Your task to perform on an android device: Open the stopwatch Image 0: 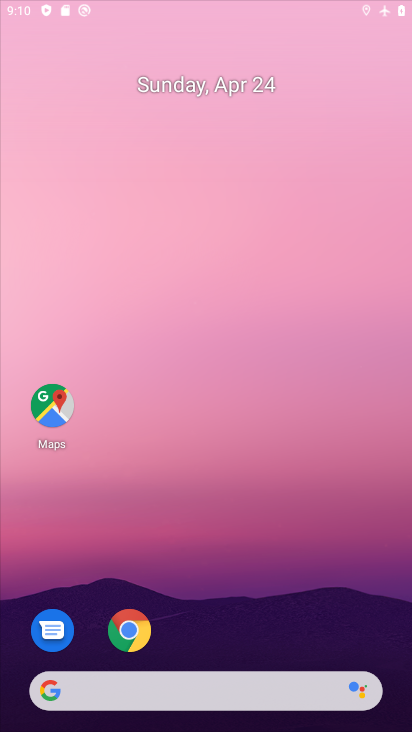
Step 0: click (91, 104)
Your task to perform on an android device: Open the stopwatch Image 1: 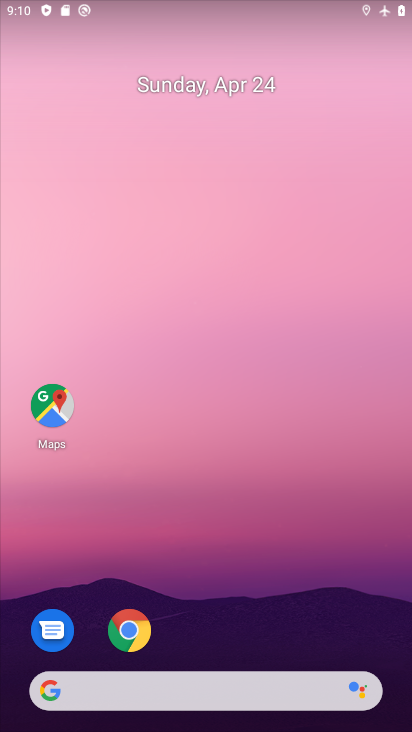
Step 1: drag from (215, 498) to (249, 276)
Your task to perform on an android device: Open the stopwatch Image 2: 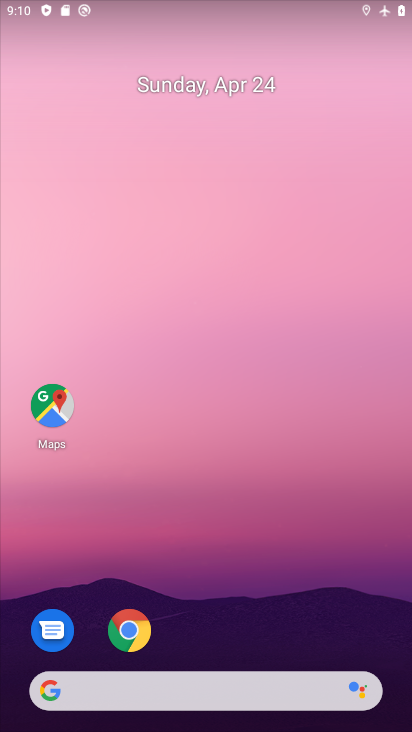
Step 2: drag from (233, 626) to (326, 193)
Your task to perform on an android device: Open the stopwatch Image 3: 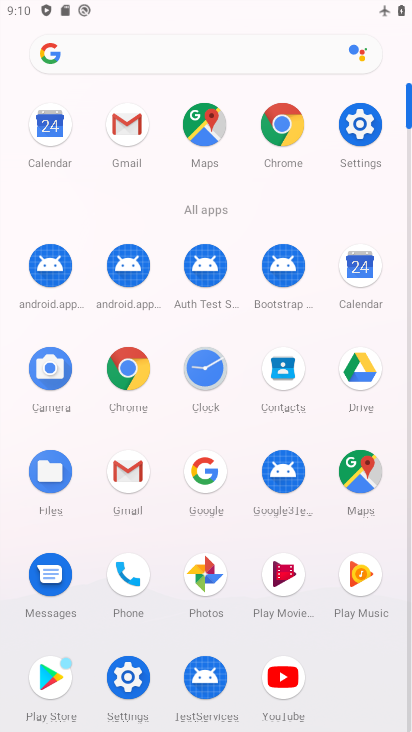
Step 3: click (208, 372)
Your task to perform on an android device: Open the stopwatch Image 4: 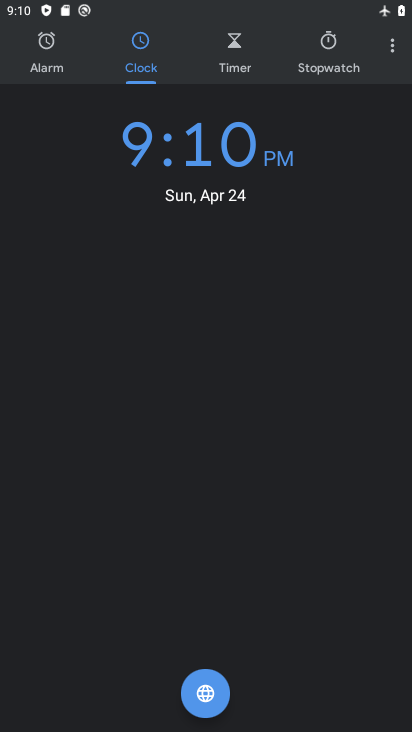
Step 4: click (331, 60)
Your task to perform on an android device: Open the stopwatch Image 5: 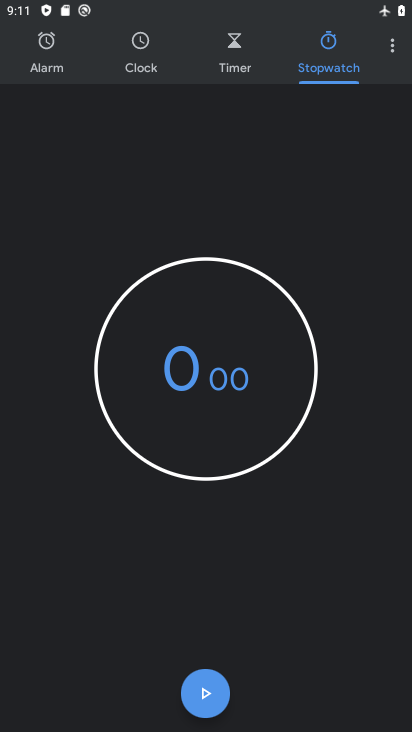
Step 5: task complete